Your task to perform on an android device: turn on the 12-hour format for clock Image 0: 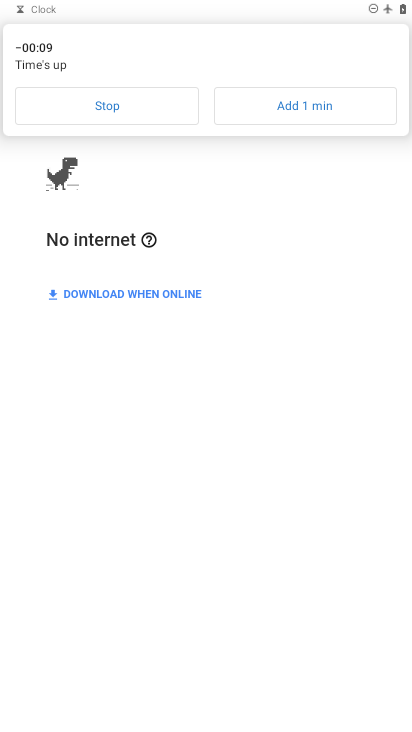
Step 0: press home button
Your task to perform on an android device: turn on the 12-hour format for clock Image 1: 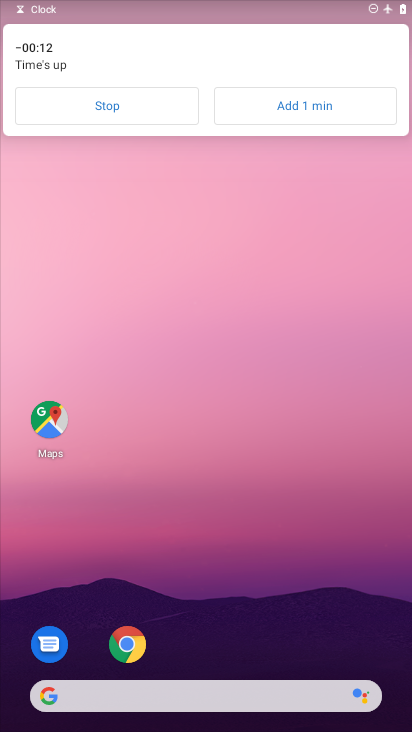
Step 1: click (104, 104)
Your task to perform on an android device: turn on the 12-hour format for clock Image 2: 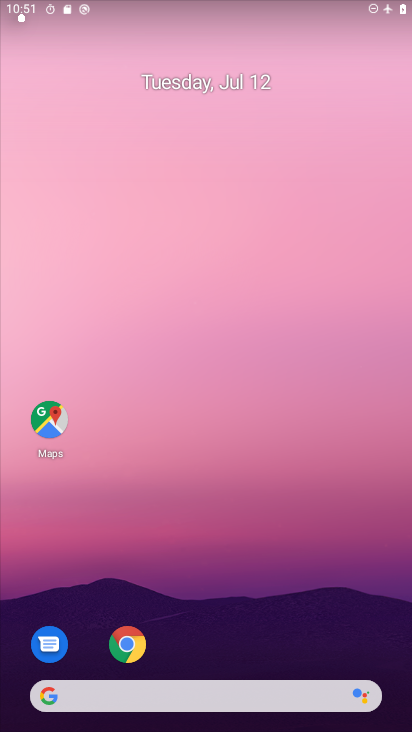
Step 2: drag from (210, 640) to (246, 149)
Your task to perform on an android device: turn on the 12-hour format for clock Image 3: 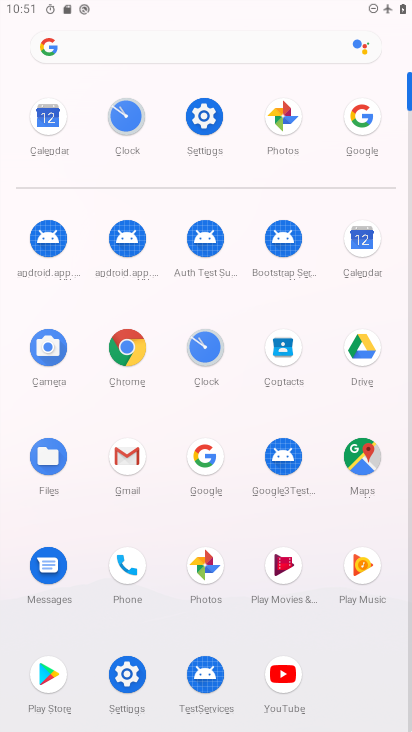
Step 3: click (138, 124)
Your task to perform on an android device: turn on the 12-hour format for clock Image 4: 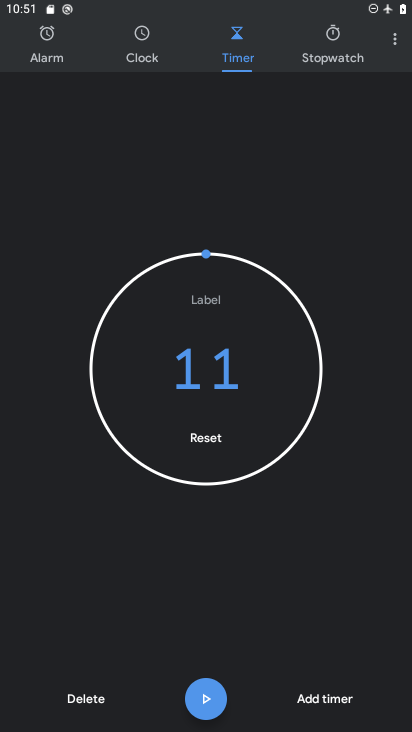
Step 4: click (393, 44)
Your task to perform on an android device: turn on the 12-hour format for clock Image 5: 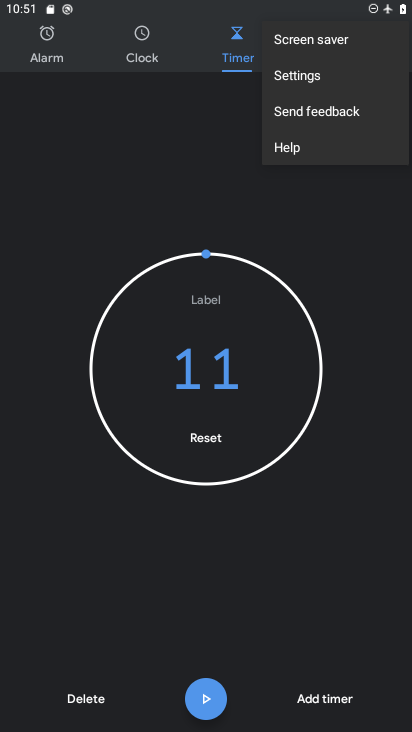
Step 5: click (323, 71)
Your task to perform on an android device: turn on the 12-hour format for clock Image 6: 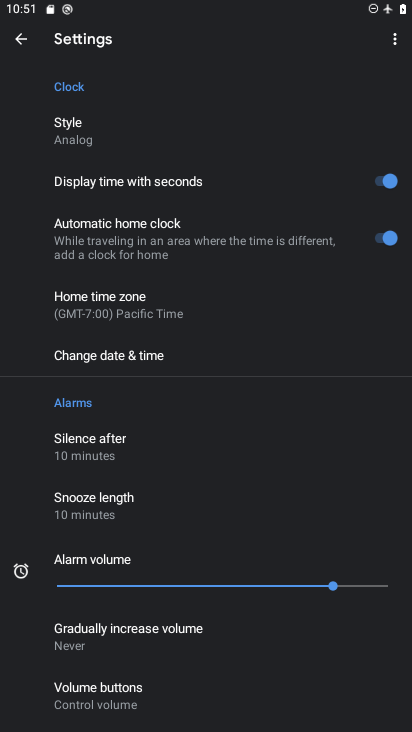
Step 6: click (161, 359)
Your task to perform on an android device: turn on the 12-hour format for clock Image 7: 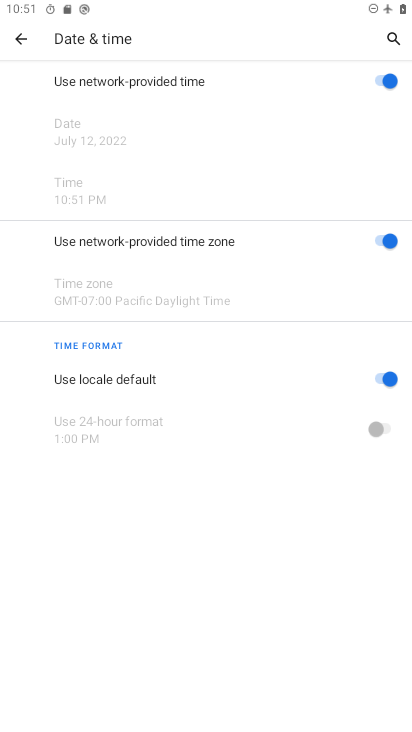
Step 7: task complete